Your task to perform on an android device: stop showing notifications on the lock screen Image 0: 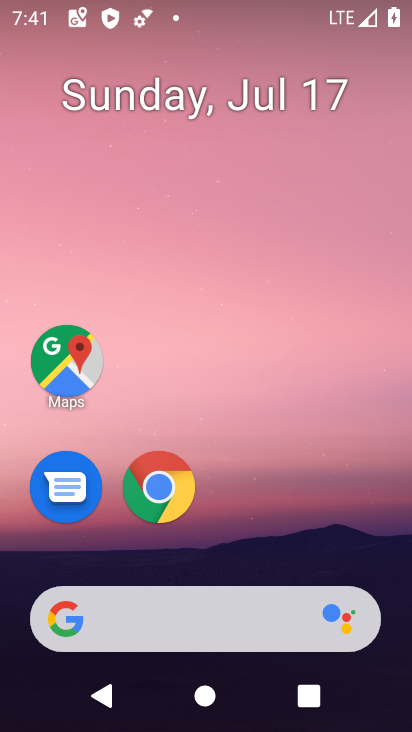
Step 0: drag from (309, 498) to (311, 105)
Your task to perform on an android device: stop showing notifications on the lock screen Image 1: 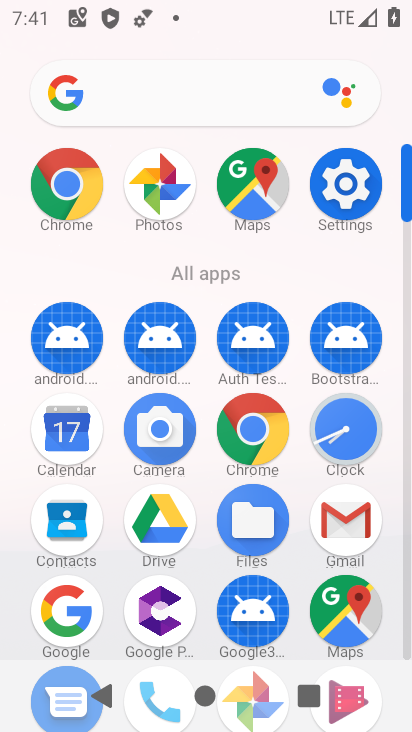
Step 1: click (351, 195)
Your task to perform on an android device: stop showing notifications on the lock screen Image 2: 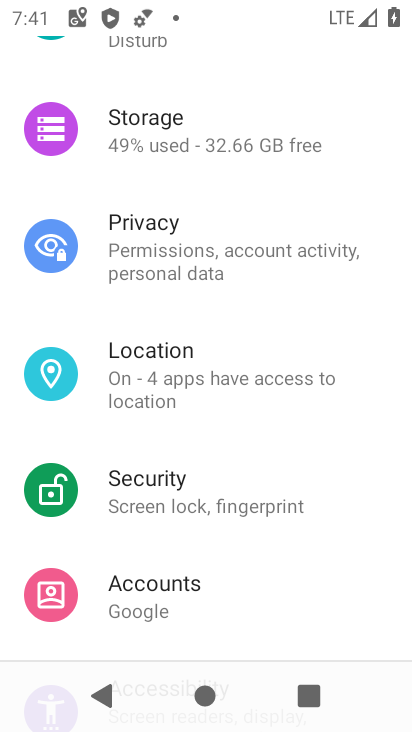
Step 2: drag from (358, 203) to (346, 315)
Your task to perform on an android device: stop showing notifications on the lock screen Image 3: 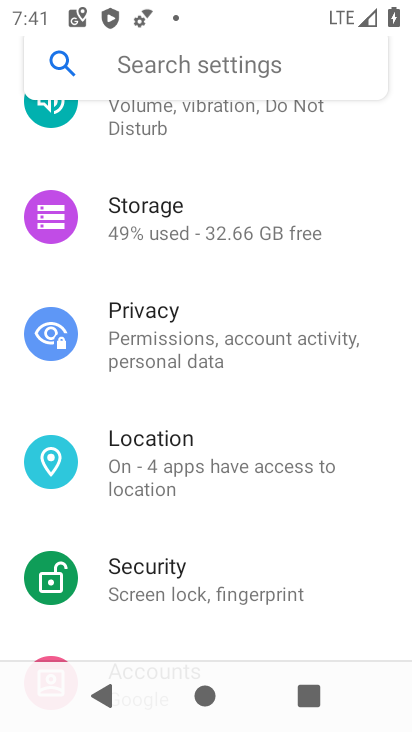
Step 3: drag from (360, 190) to (348, 327)
Your task to perform on an android device: stop showing notifications on the lock screen Image 4: 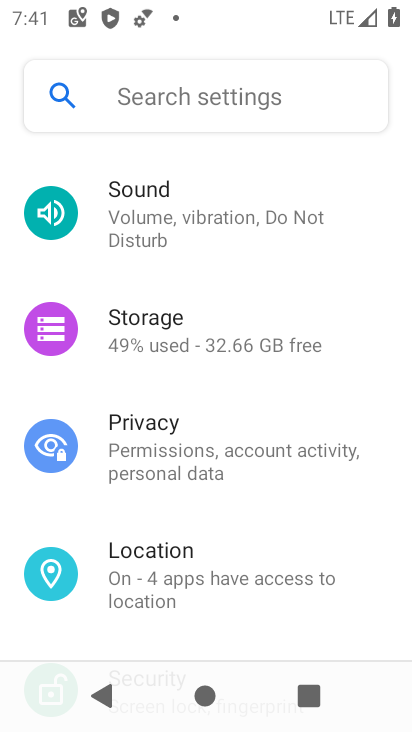
Step 4: drag from (372, 180) to (359, 315)
Your task to perform on an android device: stop showing notifications on the lock screen Image 5: 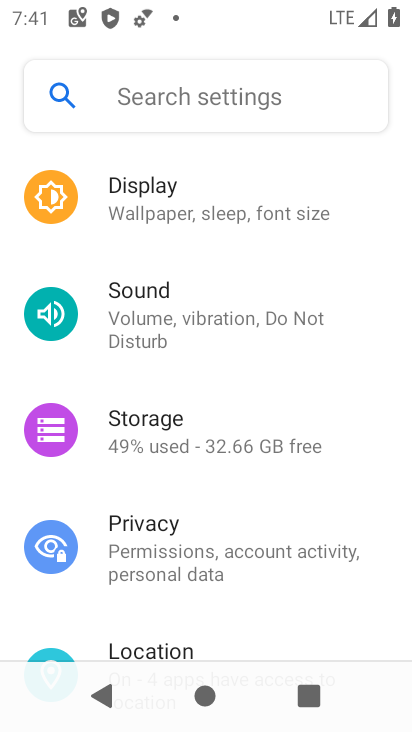
Step 5: drag from (371, 220) to (361, 306)
Your task to perform on an android device: stop showing notifications on the lock screen Image 6: 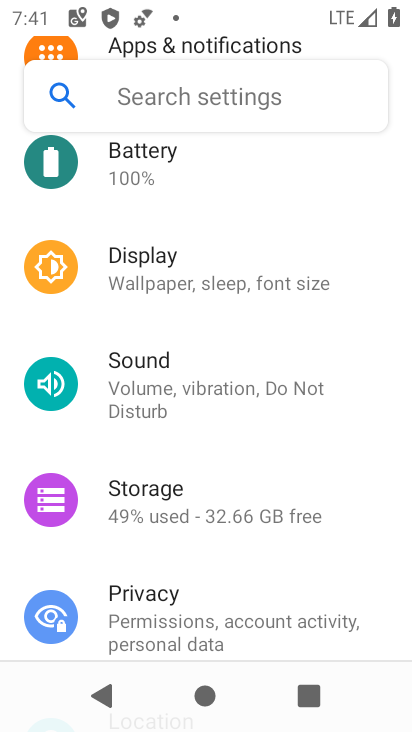
Step 6: drag from (372, 226) to (373, 316)
Your task to perform on an android device: stop showing notifications on the lock screen Image 7: 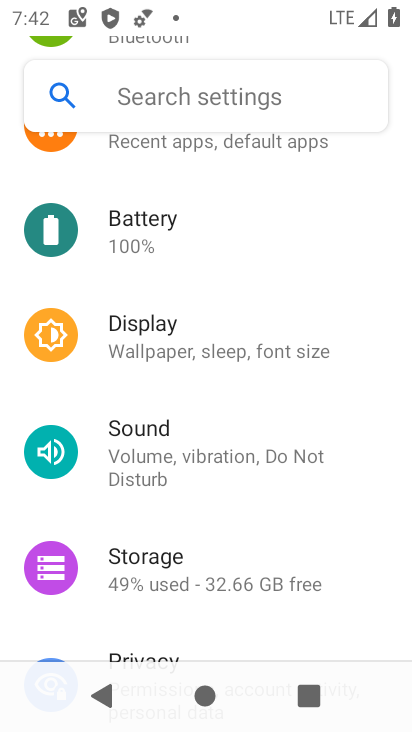
Step 7: drag from (372, 196) to (371, 354)
Your task to perform on an android device: stop showing notifications on the lock screen Image 8: 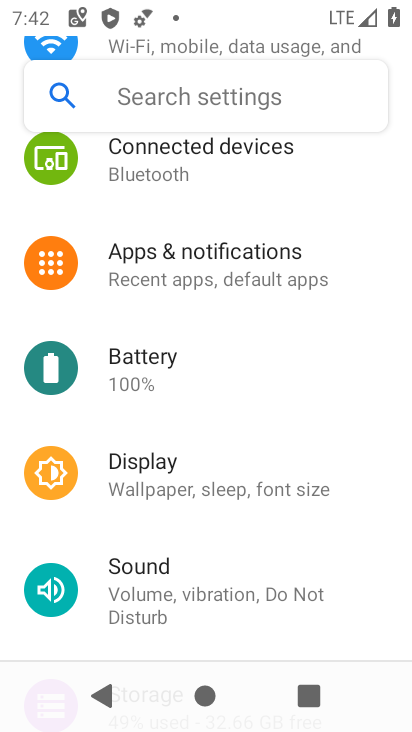
Step 8: drag from (358, 200) to (357, 313)
Your task to perform on an android device: stop showing notifications on the lock screen Image 9: 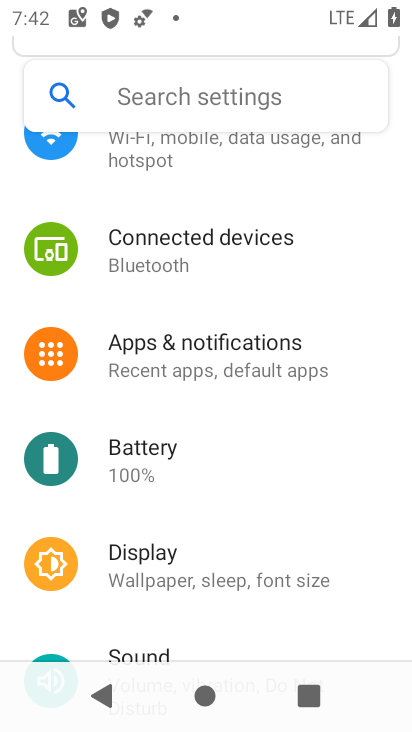
Step 9: drag from (367, 175) to (344, 301)
Your task to perform on an android device: stop showing notifications on the lock screen Image 10: 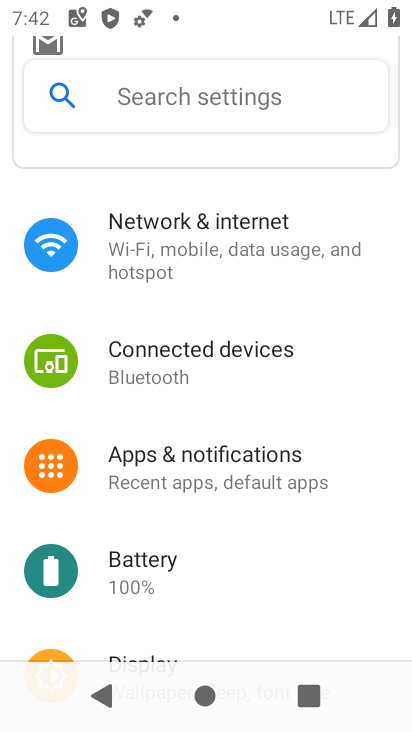
Step 10: drag from (364, 365) to (363, 324)
Your task to perform on an android device: stop showing notifications on the lock screen Image 11: 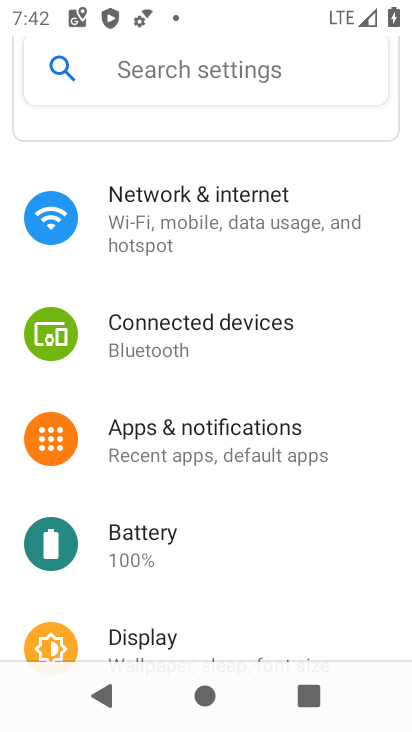
Step 11: drag from (357, 414) to (364, 320)
Your task to perform on an android device: stop showing notifications on the lock screen Image 12: 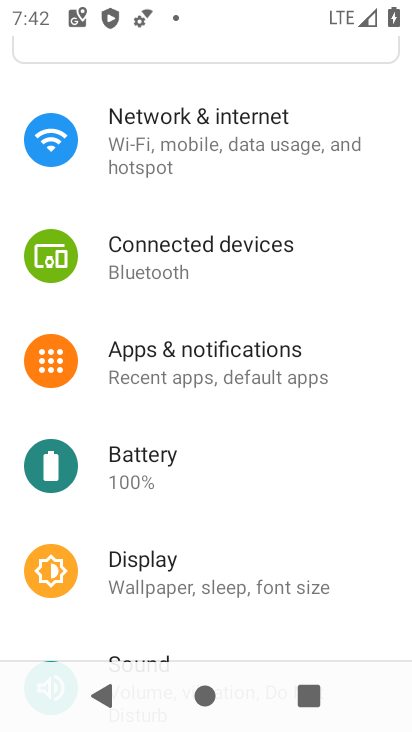
Step 12: drag from (357, 433) to (367, 311)
Your task to perform on an android device: stop showing notifications on the lock screen Image 13: 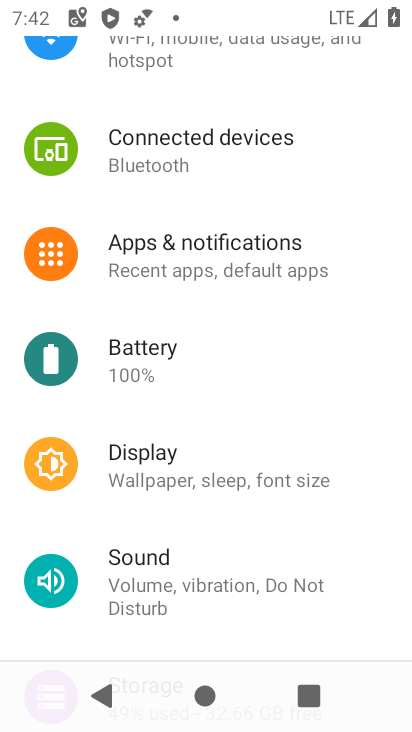
Step 13: drag from (364, 417) to (369, 303)
Your task to perform on an android device: stop showing notifications on the lock screen Image 14: 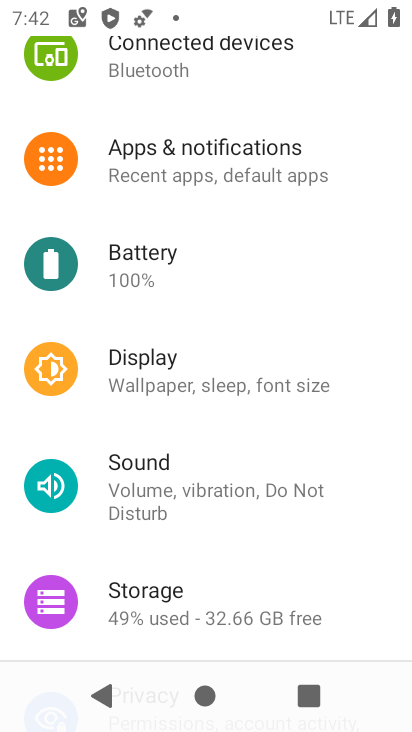
Step 14: drag from (360, 445) to (366, 314)
Your task to perform on an android device: stop showing notifications on the lock screen Image 15: 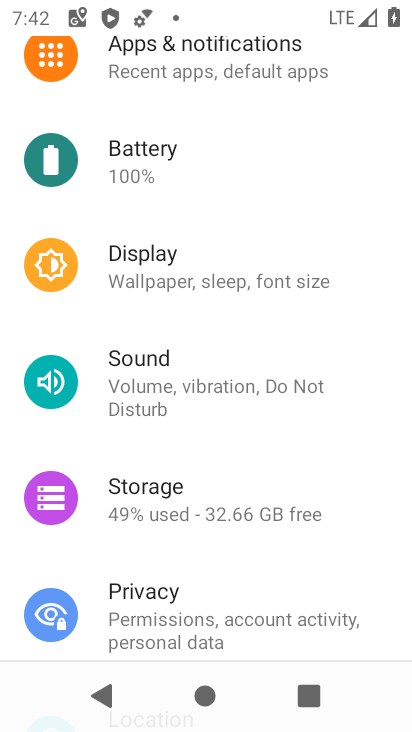
Step 15: drag from (368, 435) to (372, 279)
Your task to perform on an android device: stop showing notifications on the lock screen Image 16: 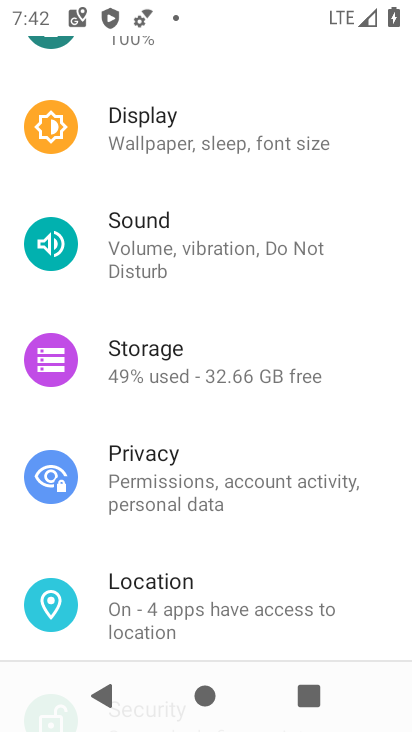
Step 16: drag from (358, 394) to (363, 258)
Your task to perform on an android device: stop showing notifications on the lock screen Image 17: 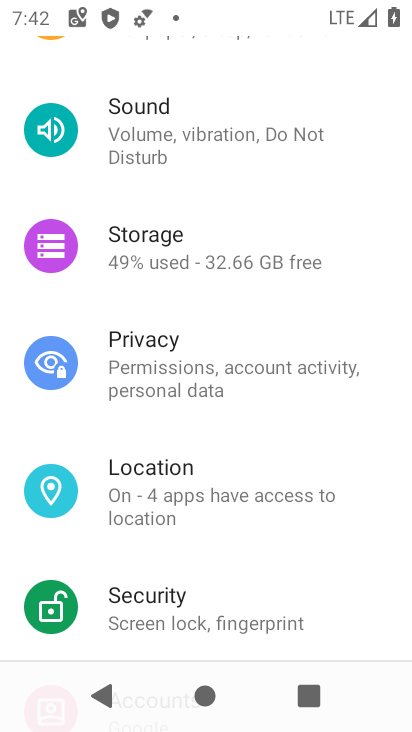
Step 17: drag from (384, 181) to (377, 256)
Your task to perform on an android device: stop showing notifications on the lock screen Image 18: 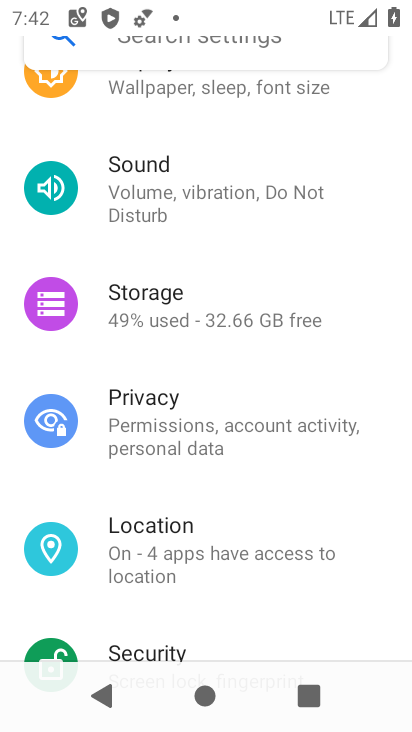
Step 18: drag from (375, 167) to (383, 395)
Your task to perform on an android device: stop showing notifications on the lock screen Image 19: 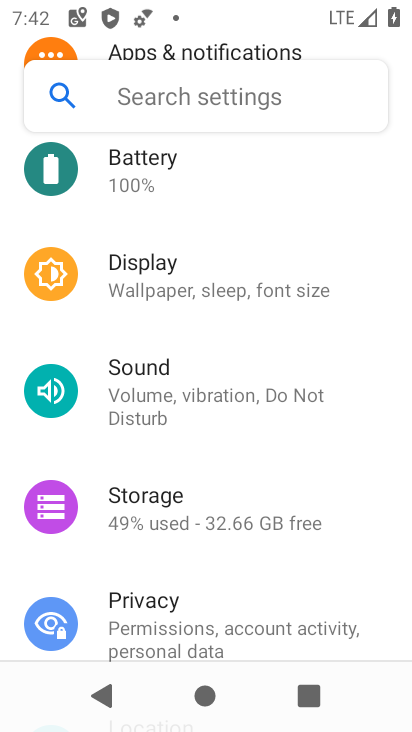
Step 19: drag from (343, 205) to (337, 361)
Your task to perform on an android device: stop showing notifications on the lock screen Image 20: 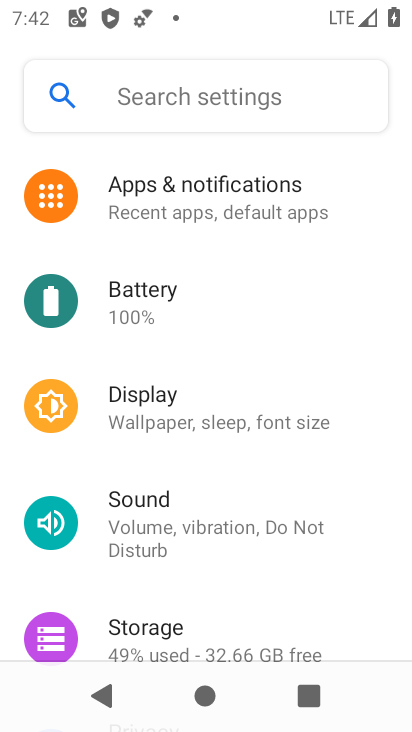
Step 20: drag from (362, 204) to (359, 309)
Your task to perform on an android device: stop showing notifications on the lock screen Image 21: 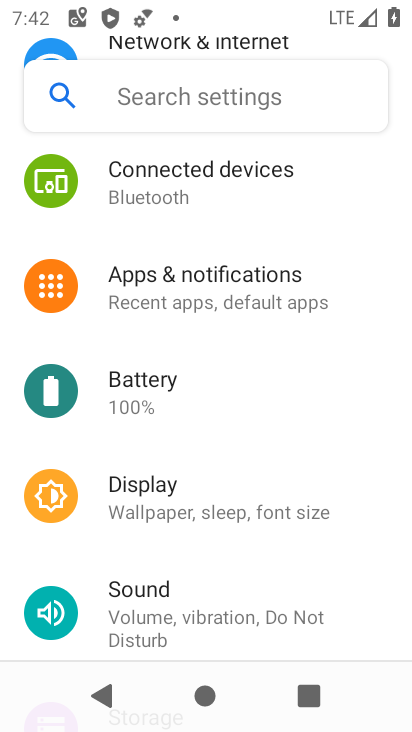
Step 21: click (259, 278)
Your task to perform on an android device: stop showing notifications on the lock screen Image 22: 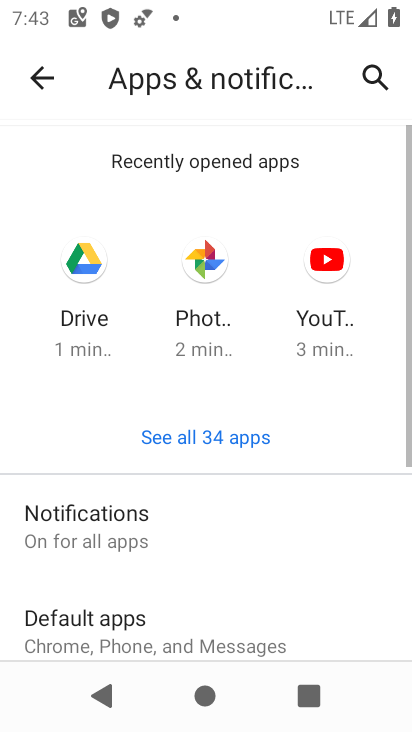
Step 22: drag from (281, 500) to (300, 397)
Your task to perform on an android device: stop showing notifications on the lock screen Image 23: 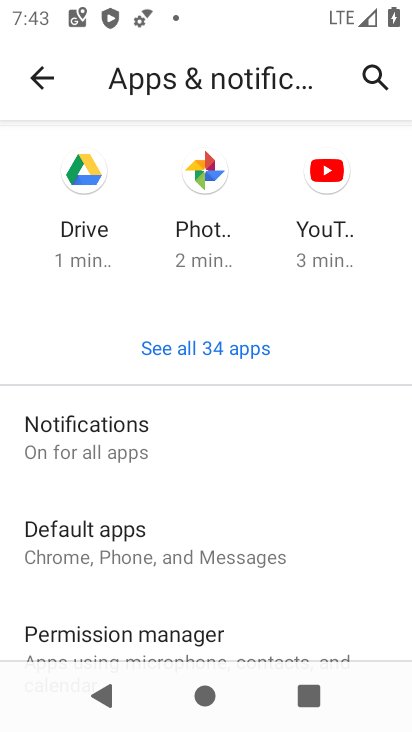
Step 23: click (261, 420)
Your task to perform on an android device: stop showing notifications on the lock screen Image 24: 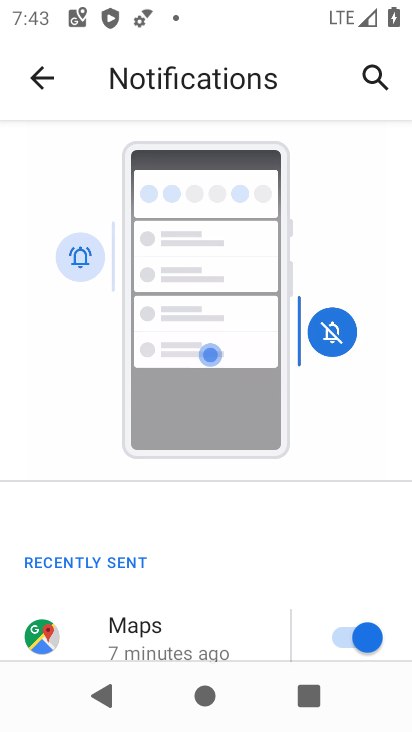
Step 24: drag from (256, 514) to (261, 397)
Your task to perform on an android device: stop showing notifications on the lock screen Image 25: 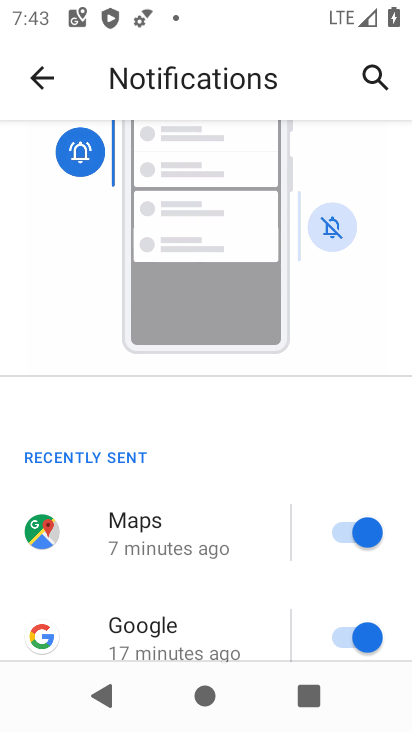
Step 25: drag from (236, 549) to (244, 440)
Your task to perform on an android device: stop showing notifications on the lock screen Image 26: 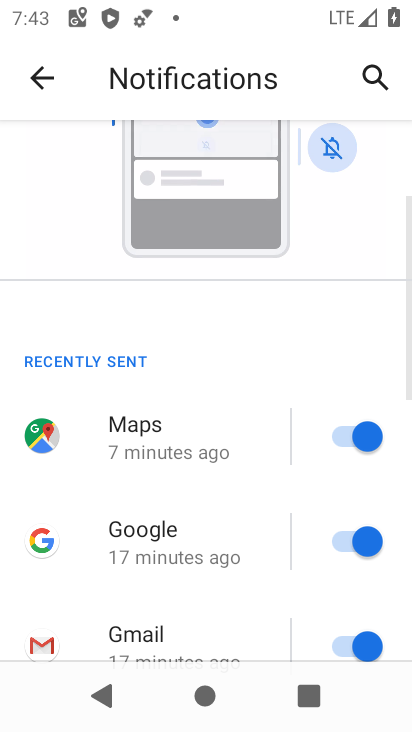
Step 26: drag from (244, 576) to (253, 451)
Your task to perform on an android device: stop showing notifications on the lock screen Image 27: 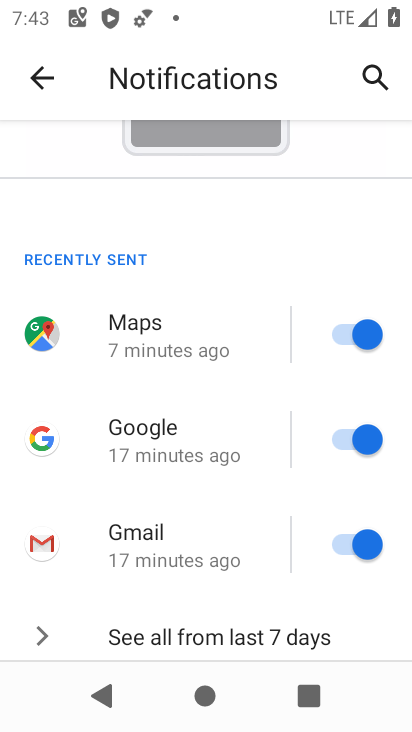
Step 27: drag from (254, 568) to (254, 479)
Your task to perform on an android device: stop showing notifications on the lock screen Image 28: 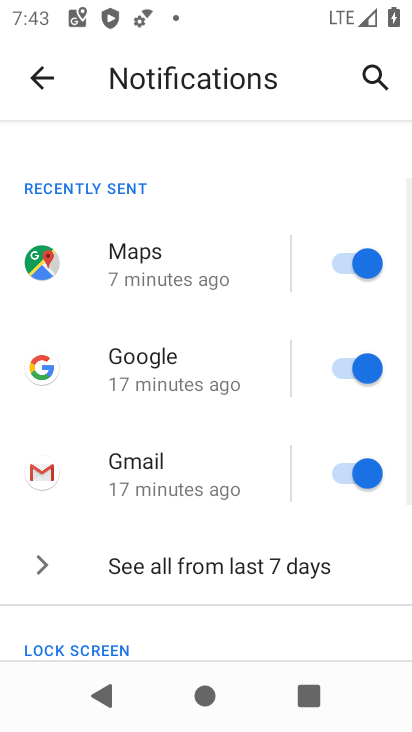
Step 28: drag from (244, 596) to (243, 285)
Your task to perform on an android device: stop showing notifications on the lock screen Image 29: 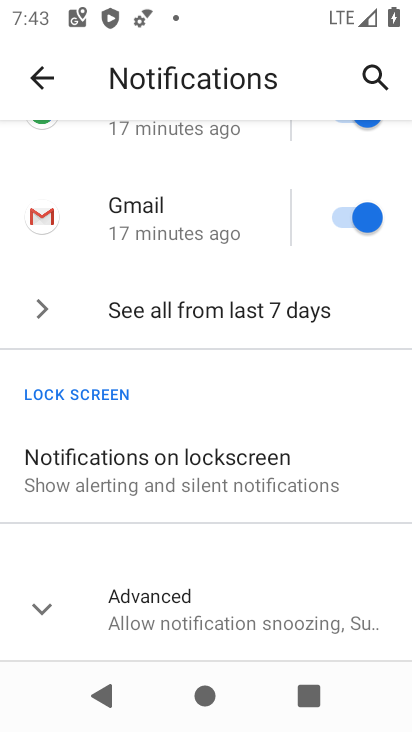
Step 29: click (231, 469)
Your task to perform on an android device: stop showing notifications on the lock screen Image 30: 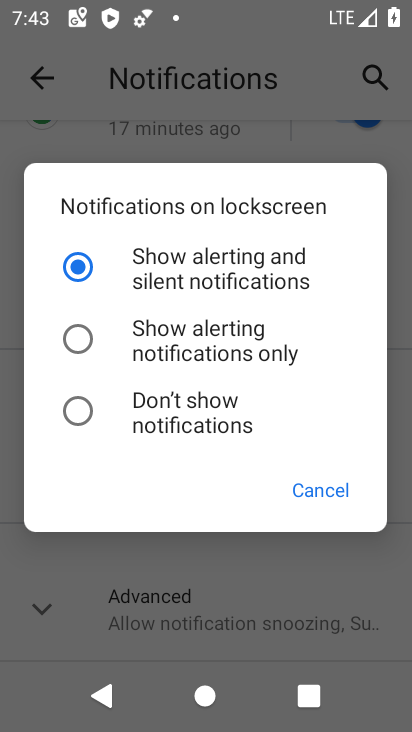
Step 30: click (89, 413)
Your task to perform on an android device: stop showing notifications on the lock screen Image 31: 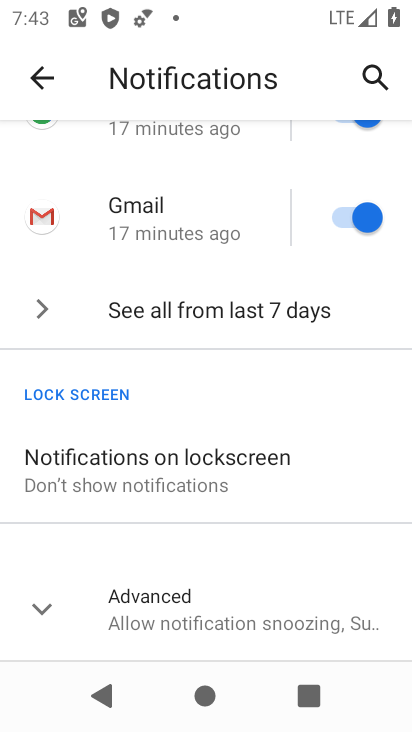
Step 31: task complete